Your task to perform on an android device: turn on priority inbox in the gmail app Image 0: 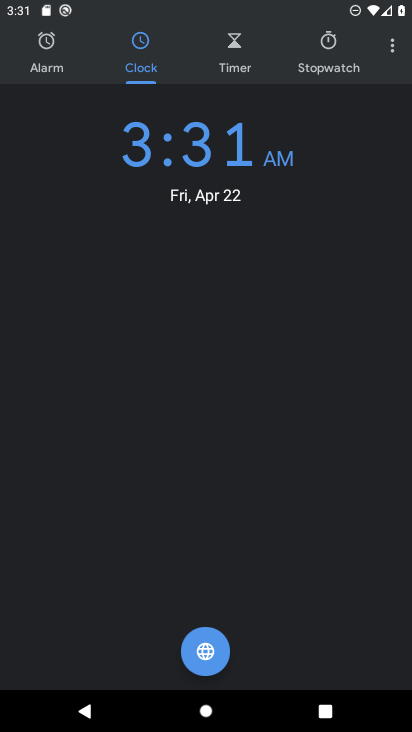
Step 0: press home button
Your task to perform on an android device: turn on priority inbox in the gmail app Image 1: 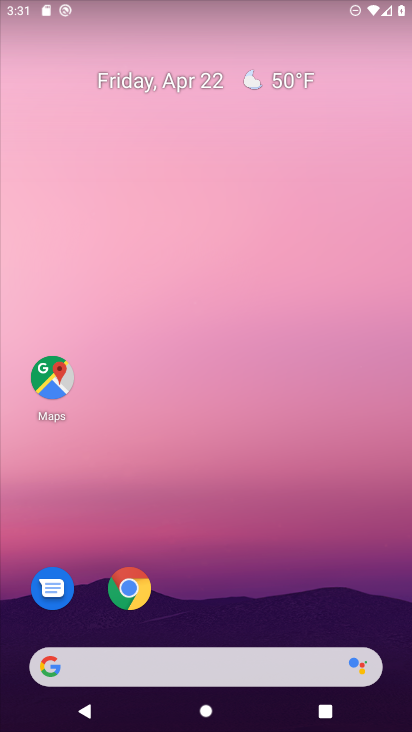
Step 1: drag from (216, 620) to (273, 9)
Your task to perform on an android device: turn on priority inbox in the gmail app Image 2: 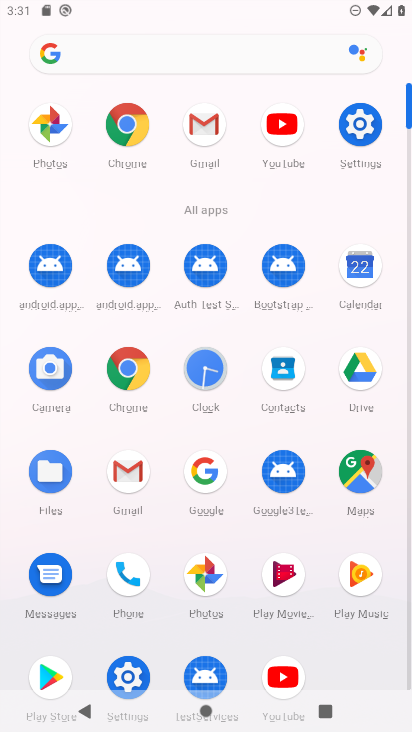
Step 2: click (124, 465)
Your task to perform on an android device: turn on priority inbox in the gmail app Image 3: 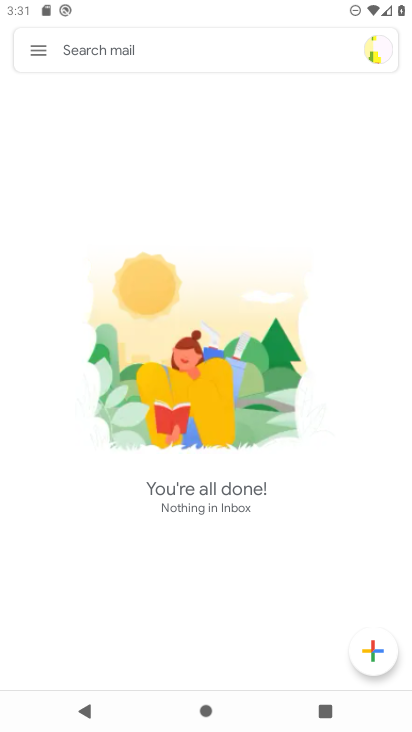
Step 3: click (40, 46)
Your task to perform on an android device: turn on priority inbox in the gmail app Image 4: 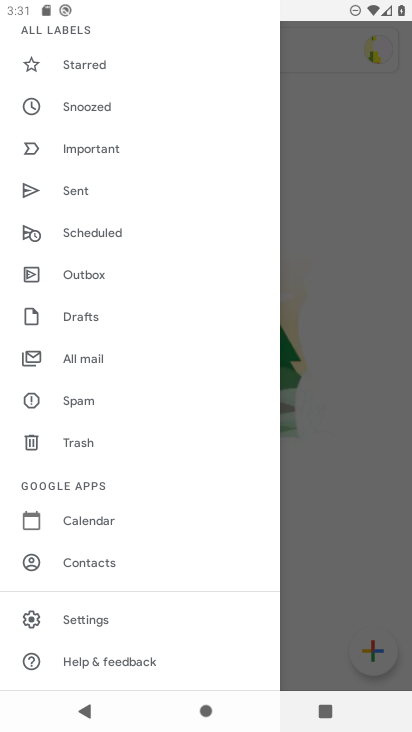
Step 4: click (96, 621)
Your task to perform on an android device: turn on priority inbox in the gmail app Image 5: 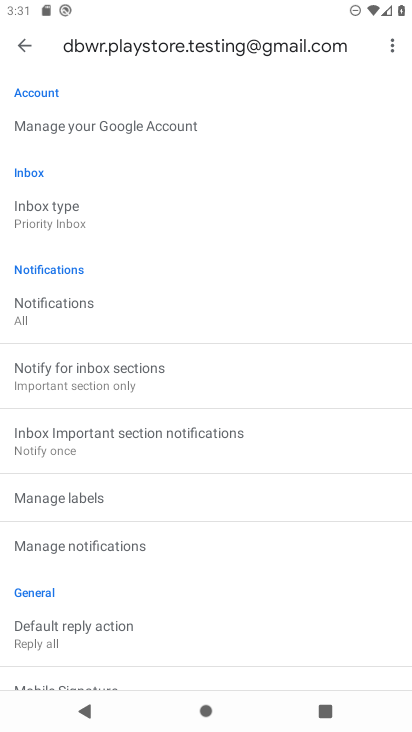
Step 5: click (83, 211)
Your task to perform on an android device: turn on priority inbox in the gmail app Image 6: 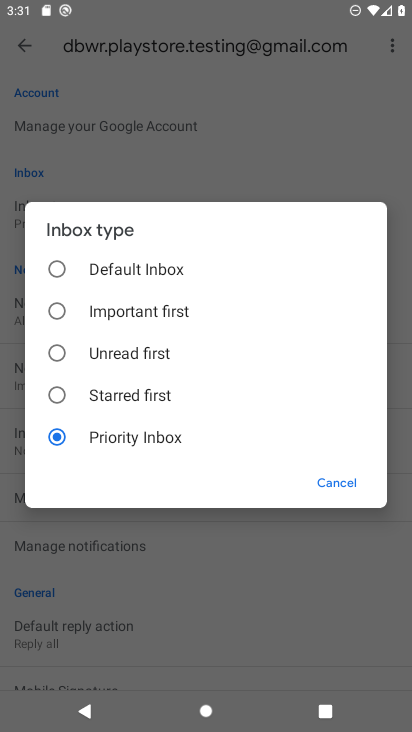
Step 6: task complete